Your task to perform on an android device: open sync settings in chrome Image 0: 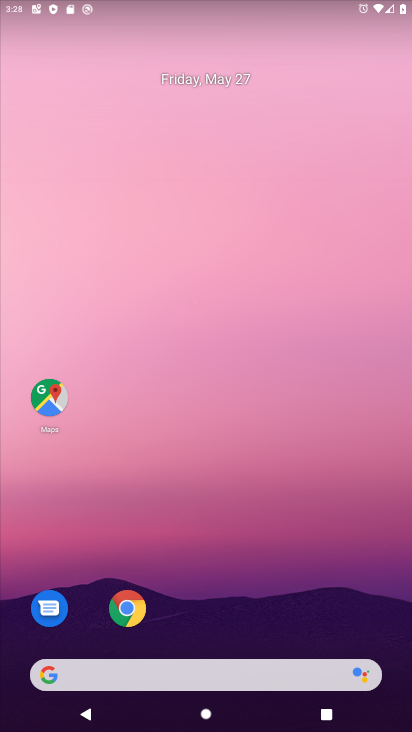
Step 0: click (127, 607)
Your task to perform on an android device: open sync settings in chrome Image 1: 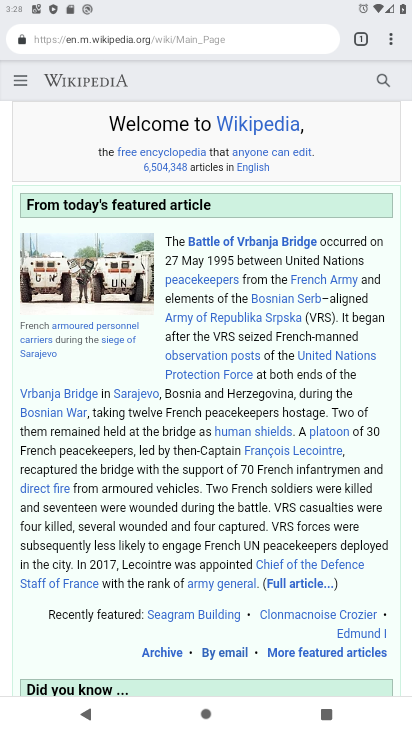
Step 1: click (394, 42)
Your task to perform on an android device: open sync settings in chrome Image 2: 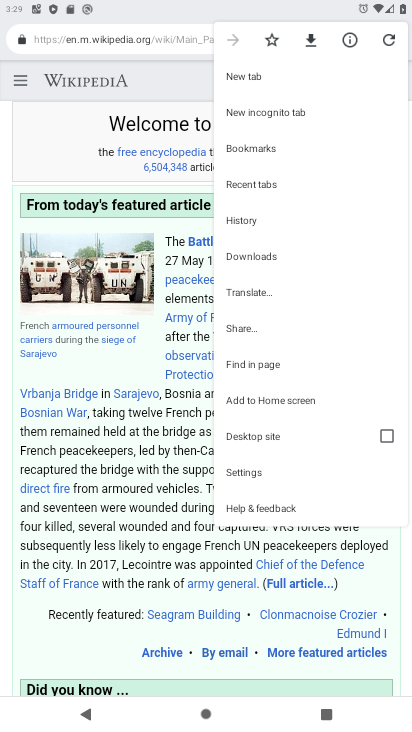
Step 2: click (246, 469)
Your task to perform on an android device: open sync settings in chrome Image 3: 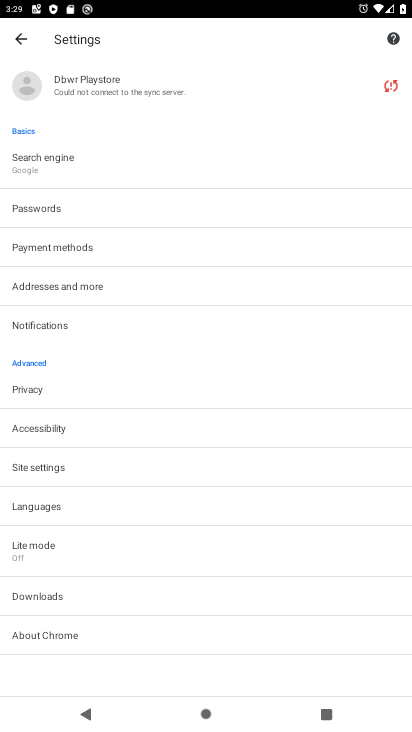
Step 3: click (81, 84)
Your task to perform on an android device: open sync settings in chrome Image 4: 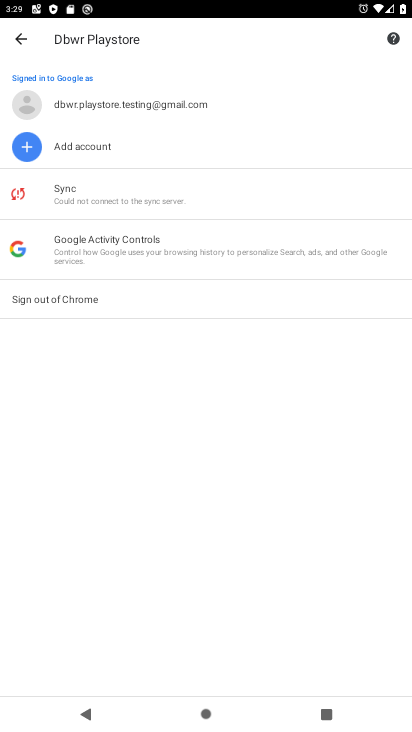
Step 4: click (102, 206)
Your task to perform on an android device: open sync settings in chrome Image 5: 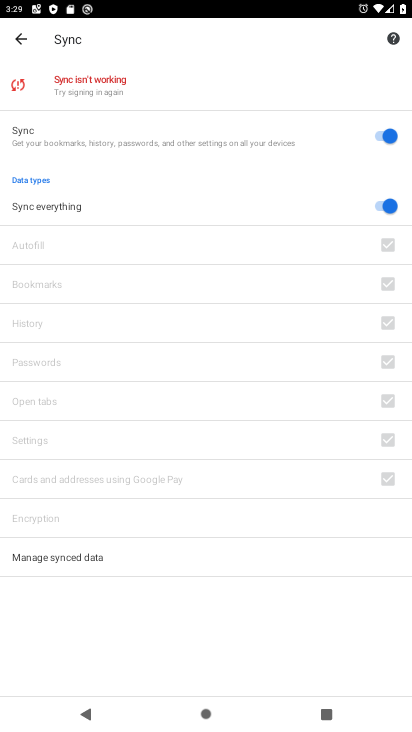
Step 5: task complete